Your task to perform on an android device: Go to CNN.com Image 0: 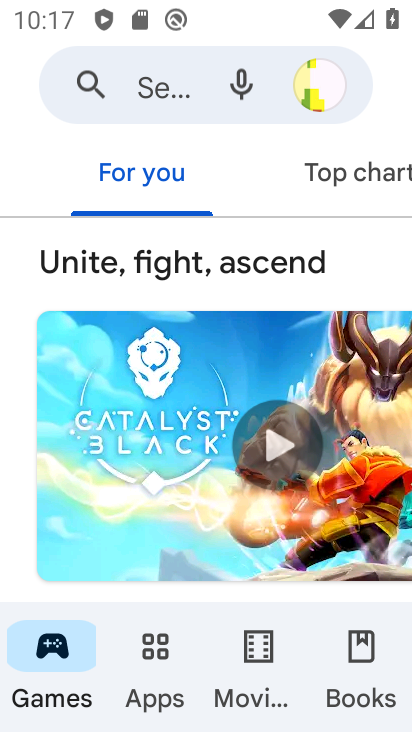
Step 0: press home button
Your task to perform on an android device: Go to CNN.com Image 1: 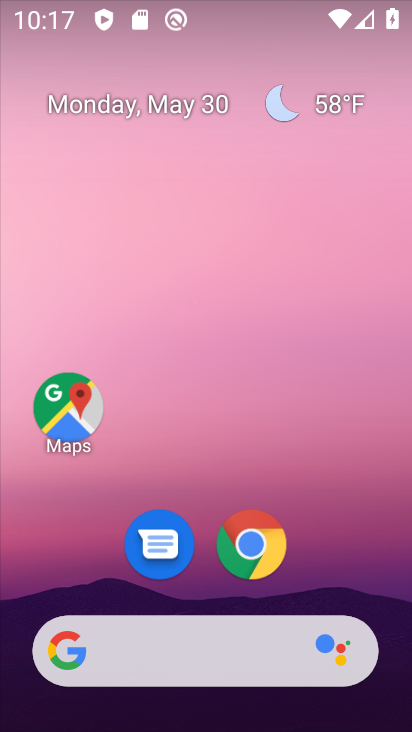
Step 1: drag from (363, 571) to (322, 0)
Your task to perform on an android device: Go to CNN.com Image 2: 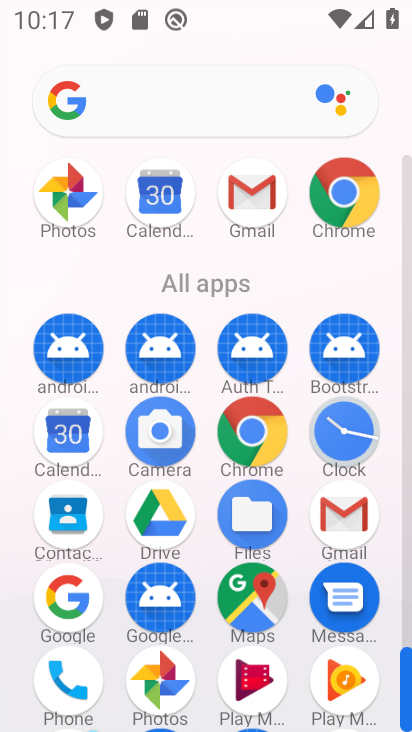
Step 2: click (212, 109)
Your task to perform on an android device: Go to CNN.com Image 3: 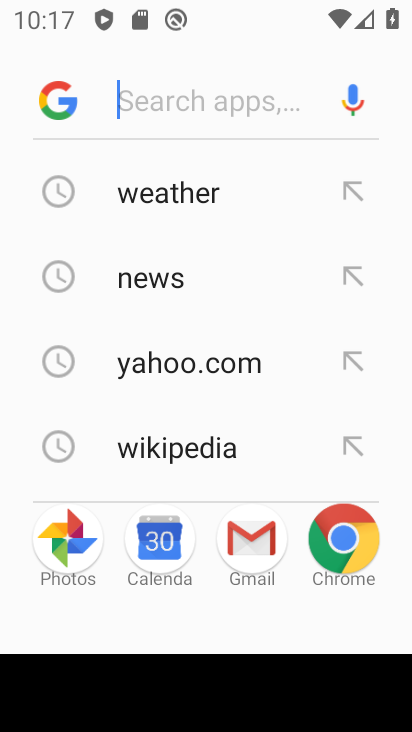
Step 3: type "cnn.com"
Your task to perform on an android device: Go to CNN.com Image 4: 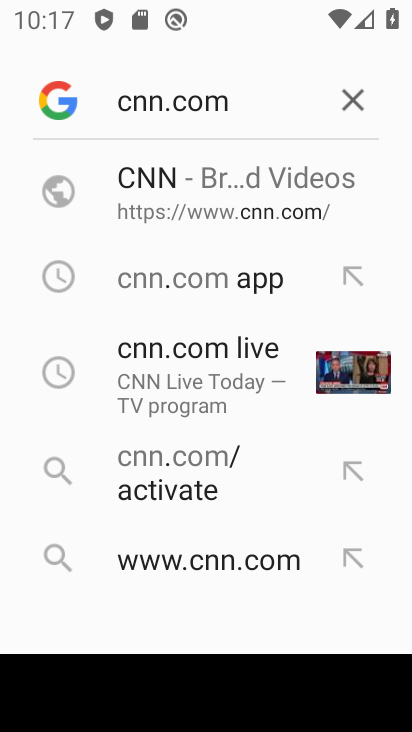
Step 4: click (217, 213)
Your task to perform on an android device: Go to CNN.com Image 5: 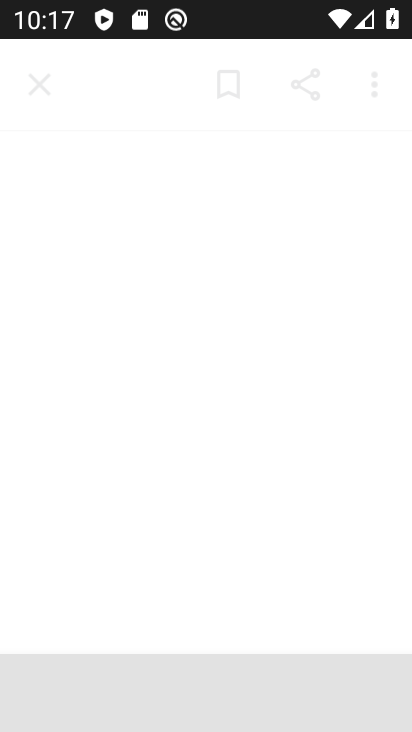
Step 5: task complete